Your task to perform on an android device: Open display settings Image 0: 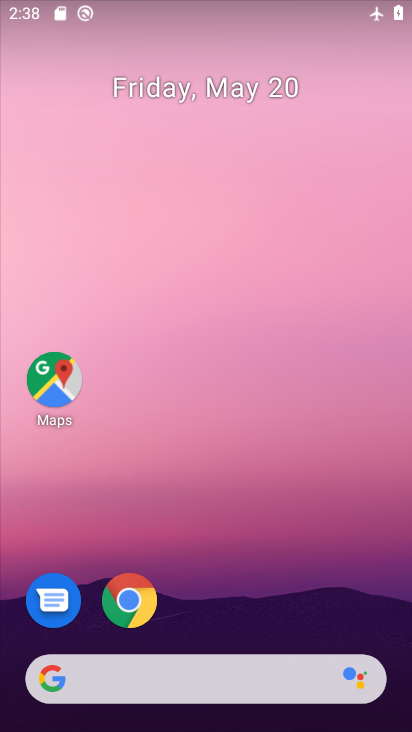
Step 0: drag from (254, 403) to (141, 107)
Your task to perform on an android device: Open display settings Image 1: 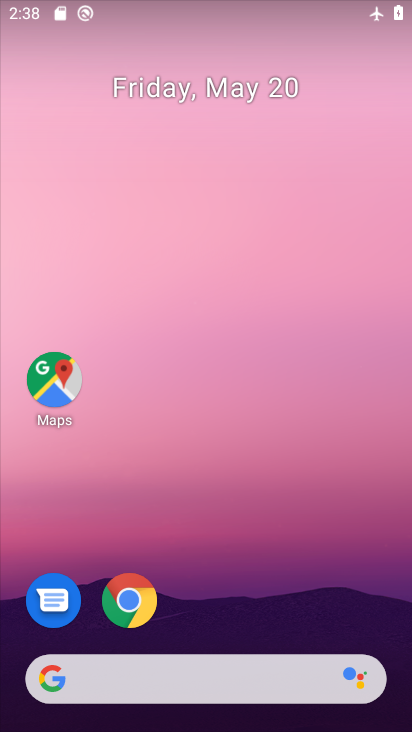
Step 1: drag from (247, 557) to (166, 1)
Your task to perform on an android device: Open display settings Image 2: 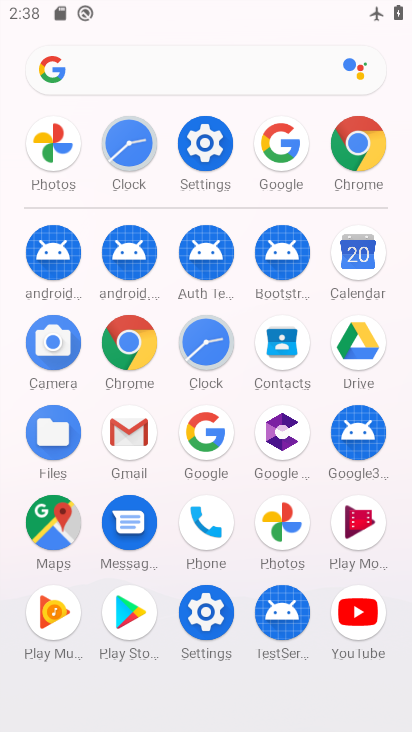
Step 2: click (221, 163)
Your task to perform on an android device: Open display settings Image 3: 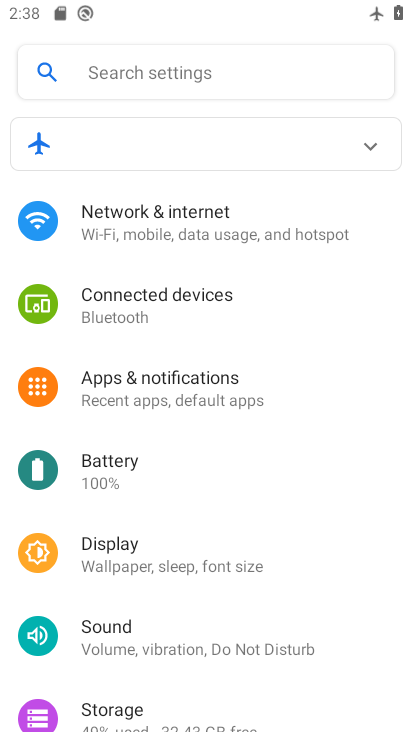
Step 3: click (213, 561)
Your task to perform on an android device: Open display settings Image 4: 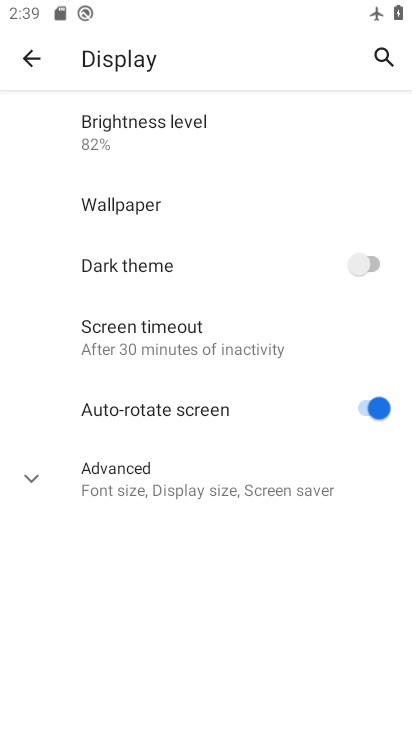
Step 4: task complete